Your task to perform on an android device: check storage Image 0: 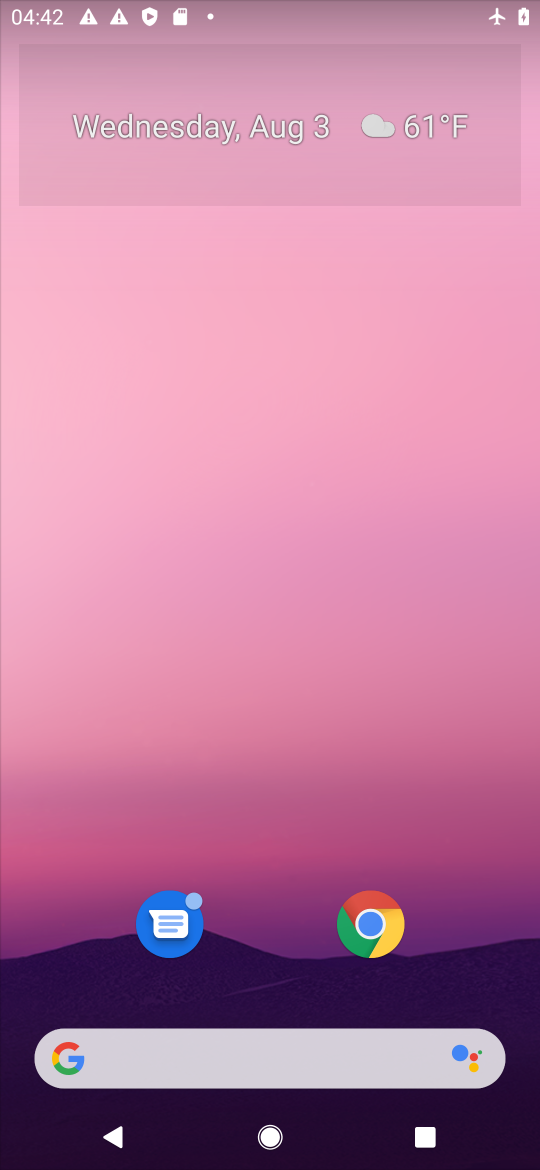
Step 0: drag from (294, 983) to (353, 389)
Your task to perform on an android device: check storage Image 1: 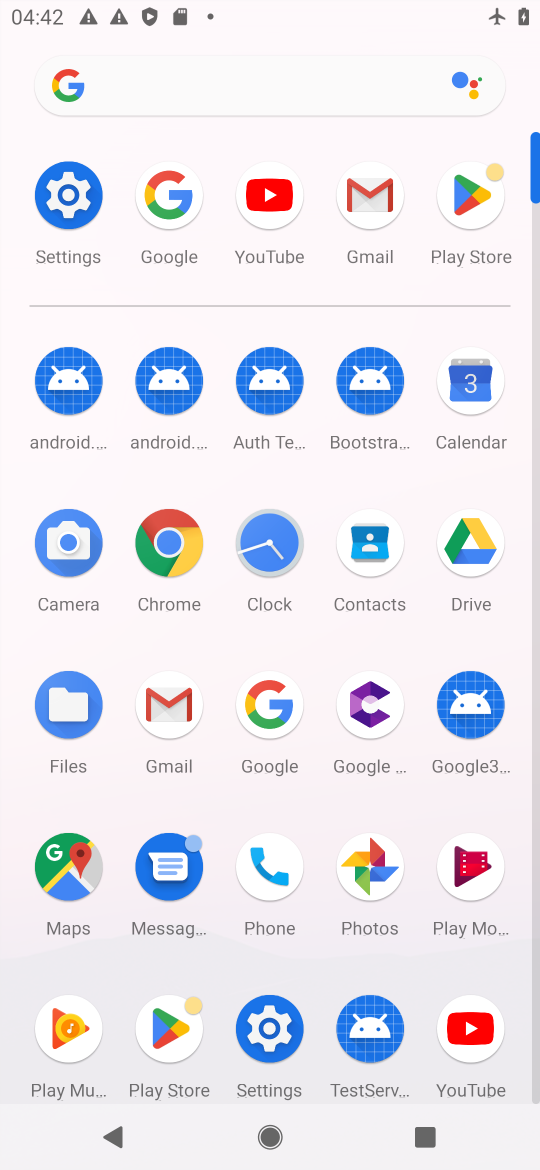
Step 1: click (91, 211)
Your task to perform on an android device: check storage Image 2: 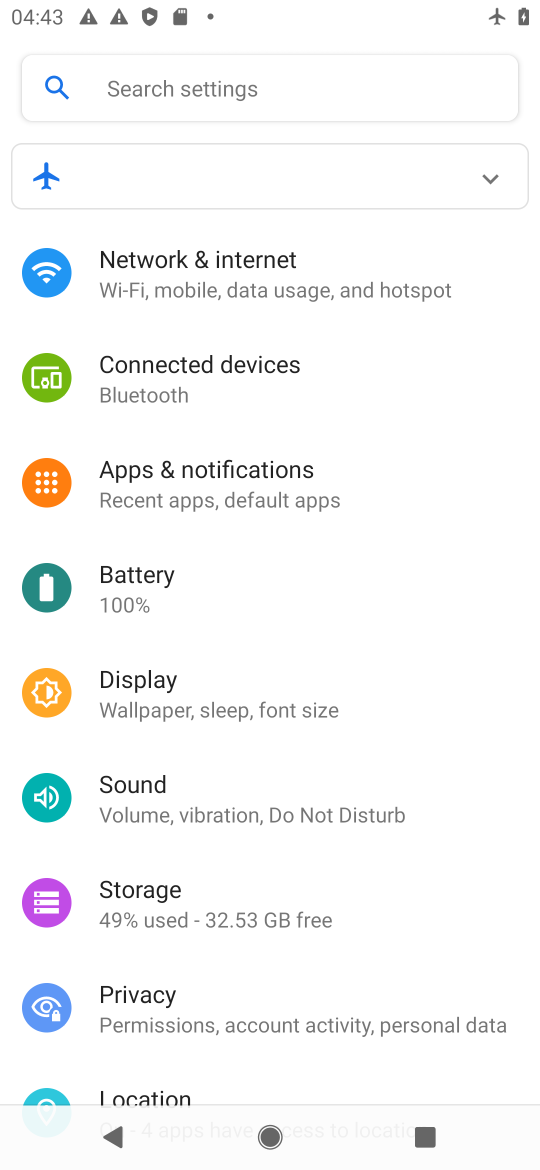
Step 2: click (184, 922)
Your task to perform on an android device: check storage Image 3: 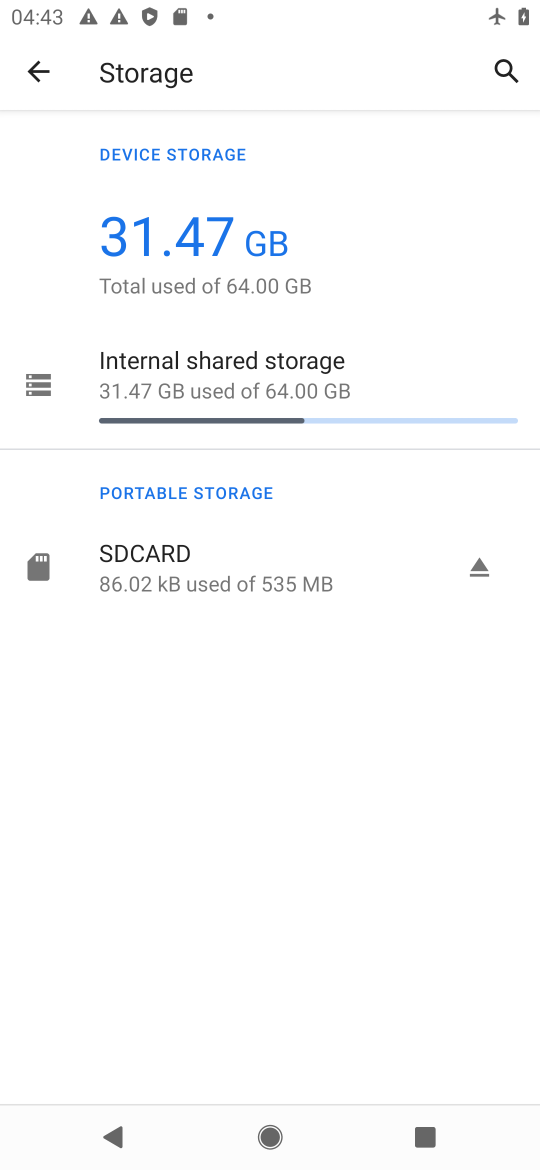
Step 3: task complete